Your task to perform on an android device: delete a single message in the gmail app Image 0: 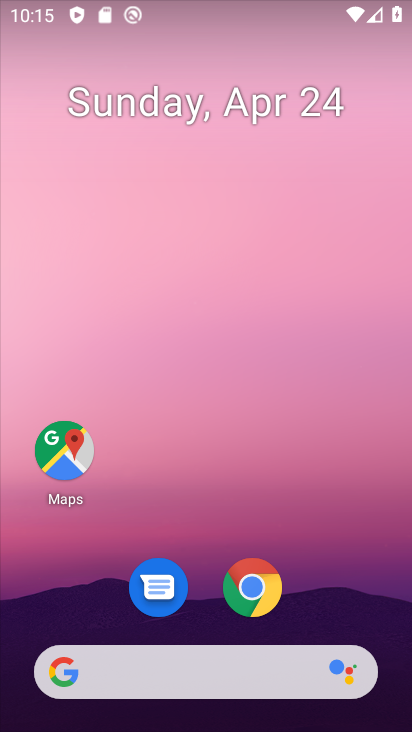
Step 0: drag from (355, 601) to (255, 29)
Your task to perform on an android device: delete a single message in the gmail app Image 1: 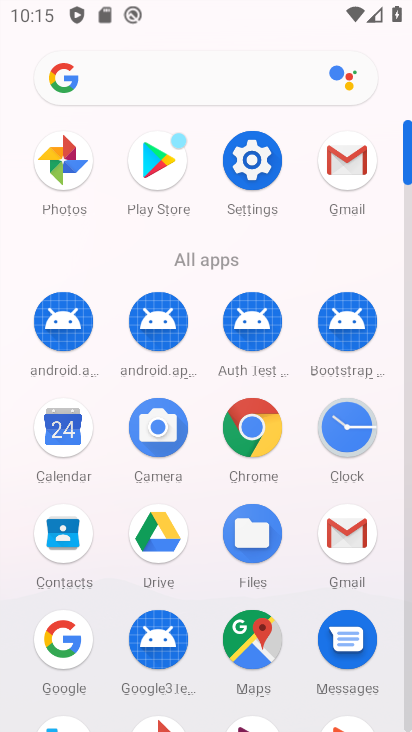
Step 1: click (337, 156)
Your task to perform on an android device: delete a single message in the gmail app Image 2: 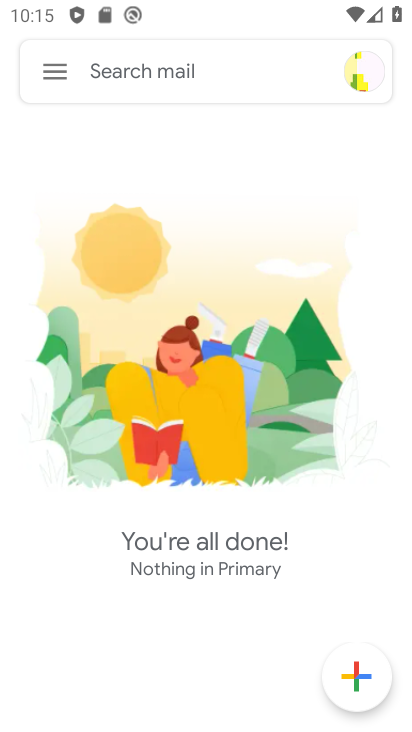
Step 2: click (64, 76)
Your task to perform on an android device: delete a single message in the gmail app Image 3: 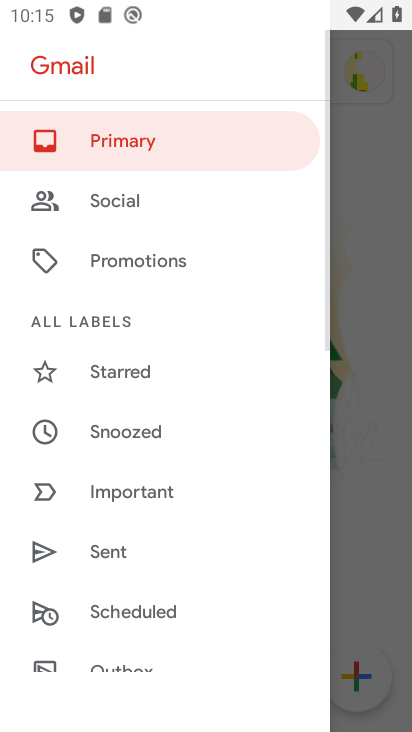
Step 3: drag from (153, 617) to (138, 108)
Your task to perform on an android device: delete a single message in the gmail app Image 4: 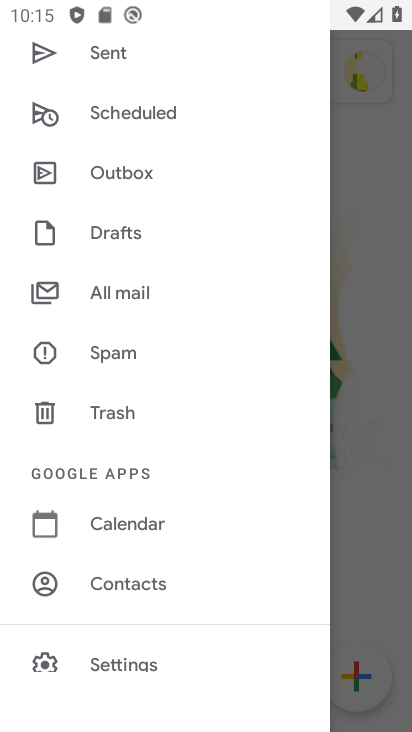
Step 4: click (130, 303)
Your task to perform on an android device: delete a single message in the gmail app Image 5: 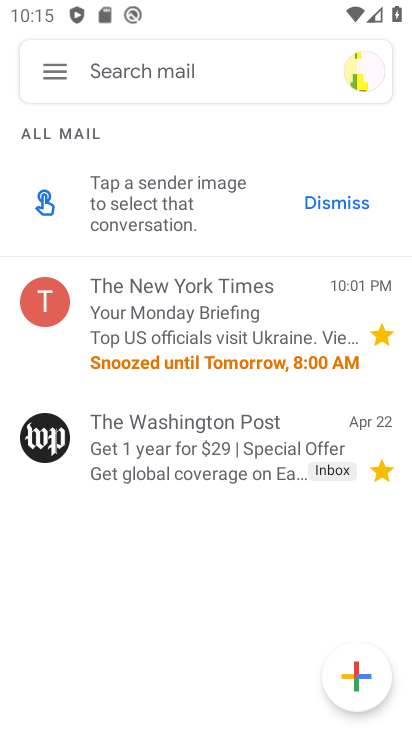
Step 5: click (187, 436)
Your task to perform on an android device: delete a single message in the gmail app Image 6: 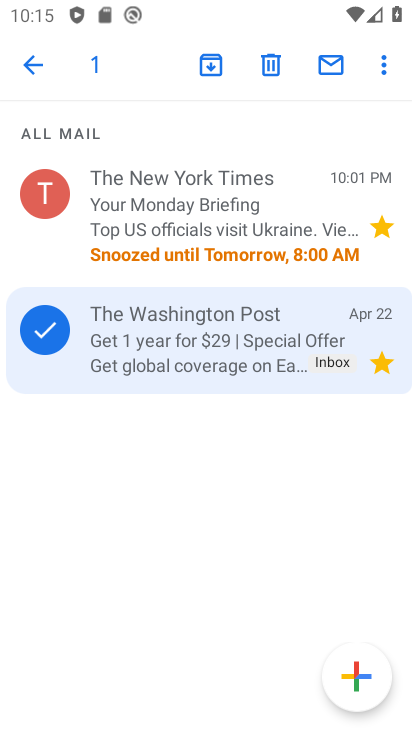
Step 6: click (266, 61)
Your task to perform on an android device: delete a single message in the gmail app Image 7: 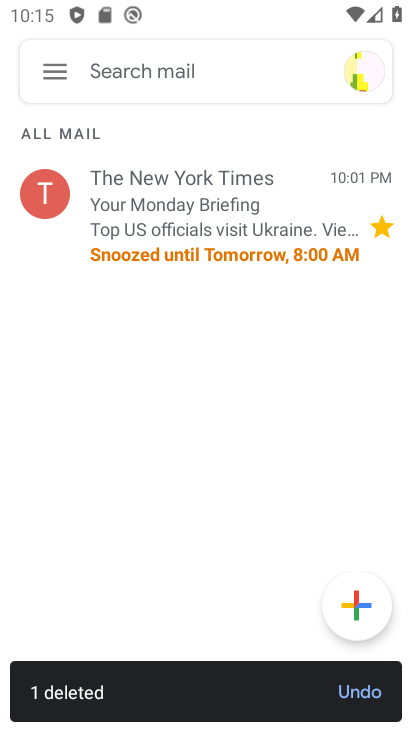
Step 7: task complete